Your task to perform on an android device: turn off wifi Image 0: 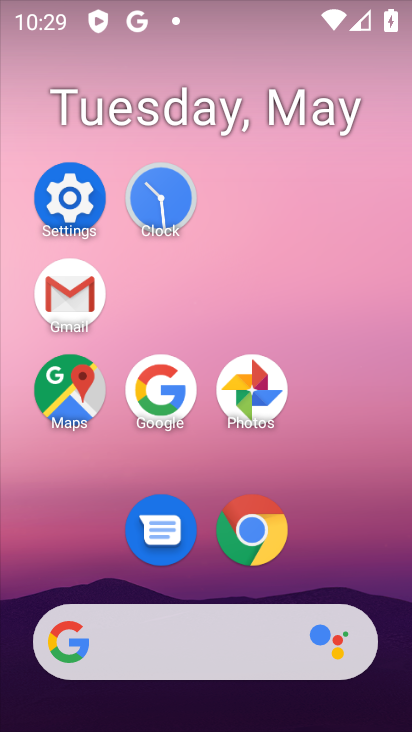
Step 0: click (66, 205)
Your task to perform on an android device: turn off wifi Image 1: 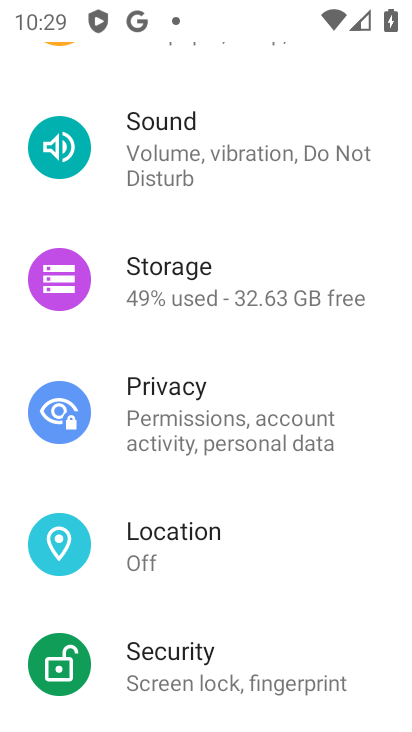
Step 1: drag from (374, 197) to (358, 520)
Your task to perform on an android device: turn off wifi Image 2: 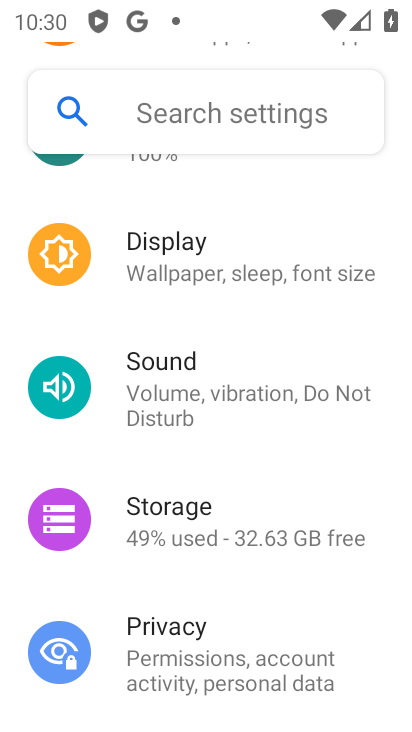
Step 2: drag from (279, 196) to (298, 484)
Your task to perform on an android device: turn off wifi Image 3: 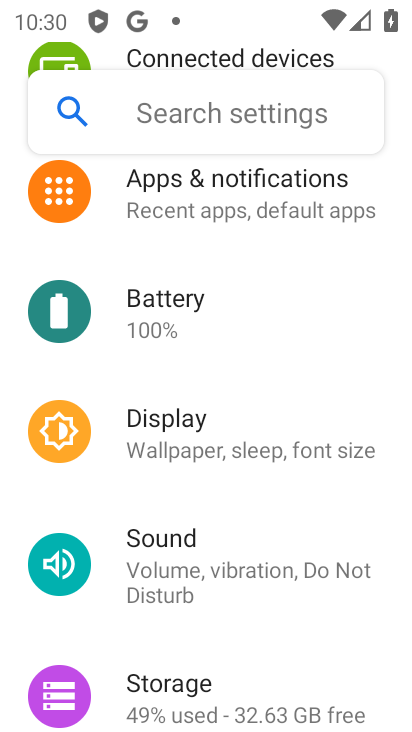
Step 3: drag from (335, 262) to (318, 509)
Your task to perform on an android device: turn off wifi Image 4: 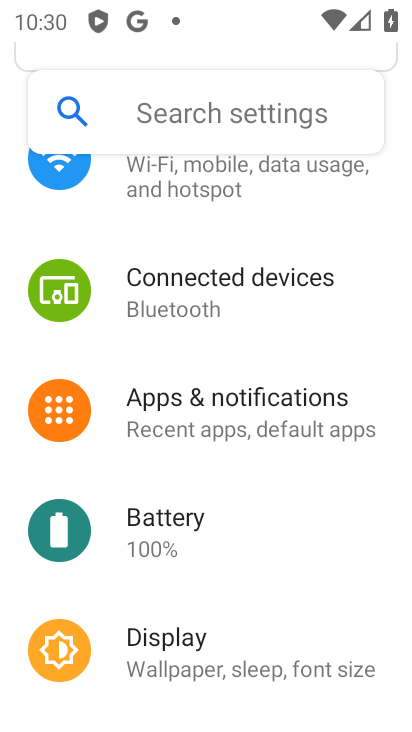
Step 4: click (278, 200)
Your task to perform on an android device: turn off wifi Image 5: 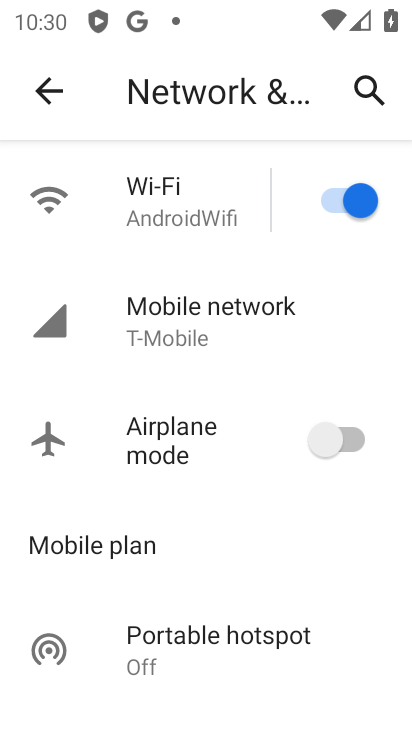
Step 5: click (356, 196)
Your task to perform on an android device: turn off wifi Image 6: 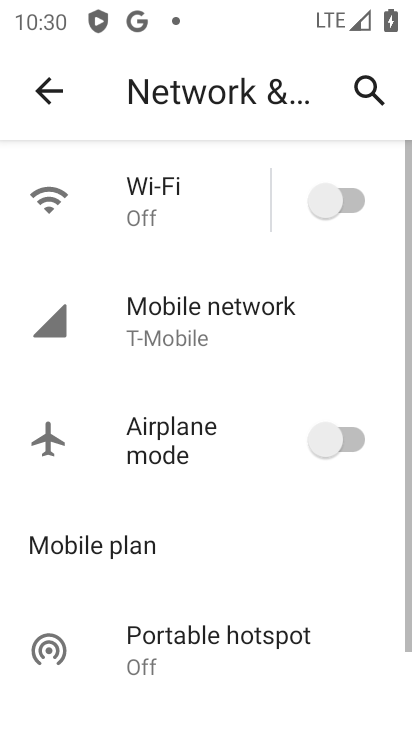
Step 6: task complete